Your task to perform on an android device: Go to ESPN.com Image 0: 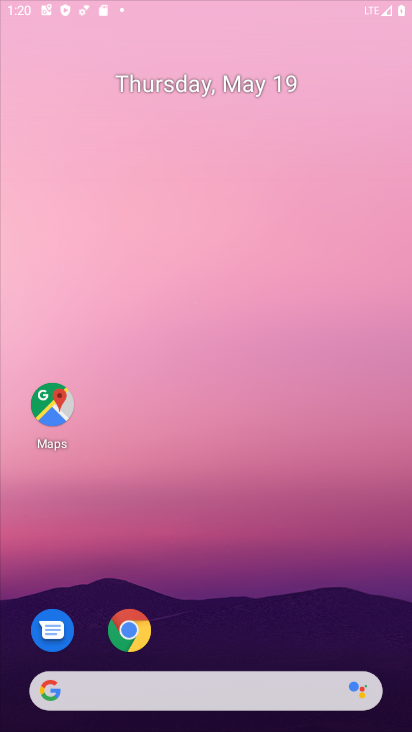
Step 0: click (229, 22)
Your task to perform on an android device: Go to ESPN.com Image 1: 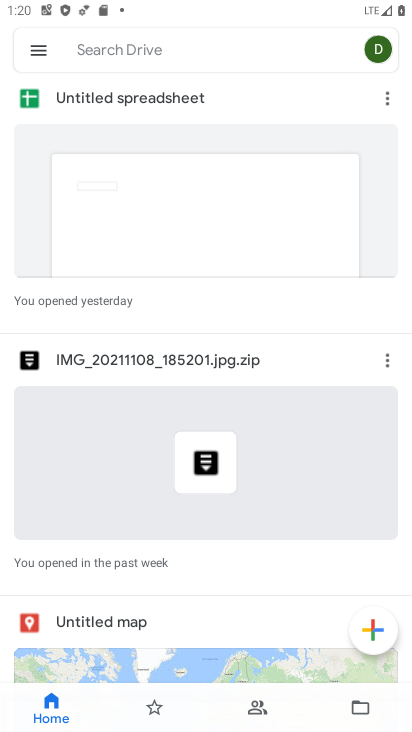
Step 1: press home button
Your task to perform on an android device: Go to ESPN.com Image 2: 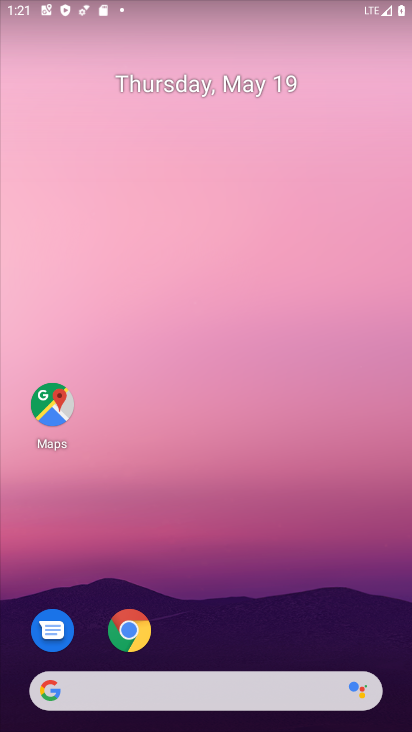
Step 2: click (143, 625)
Your task to perform on an android device: Go to ESPN.com Image 3: 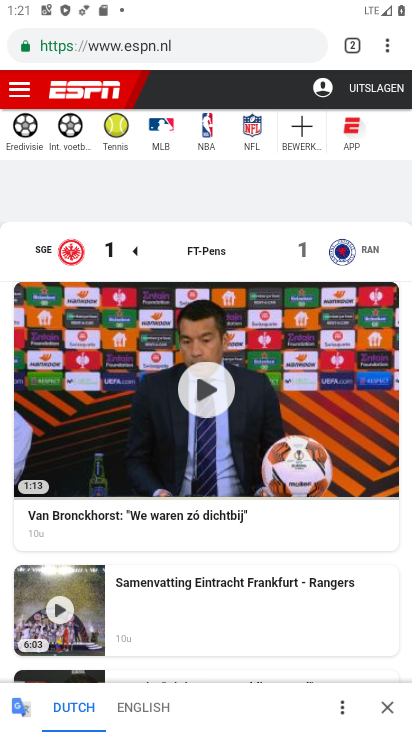
Step 3: task complete